Your task to perform on an android device: turn on airplane mode Image 0: 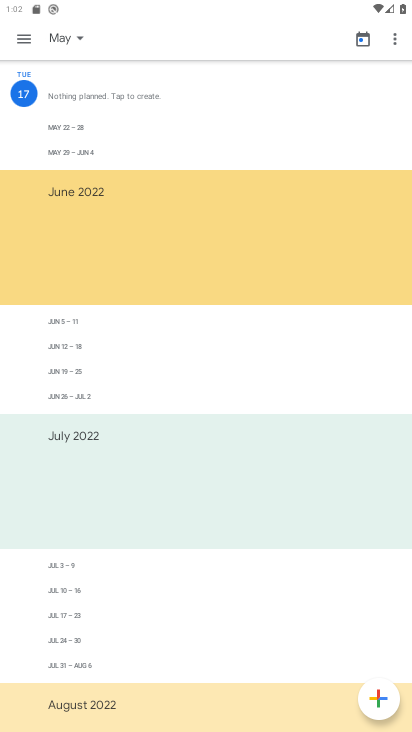
Step 0: press home button
Your task to perform on an android device: turn on airplane mode Image 1: 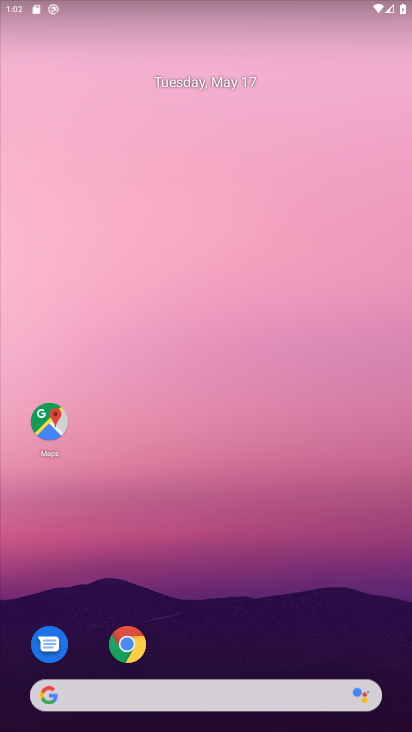
Step 1: drag from (231, 573) to (240, 63)
Your task to perform on an android device: turn on airplane mode Image 2: 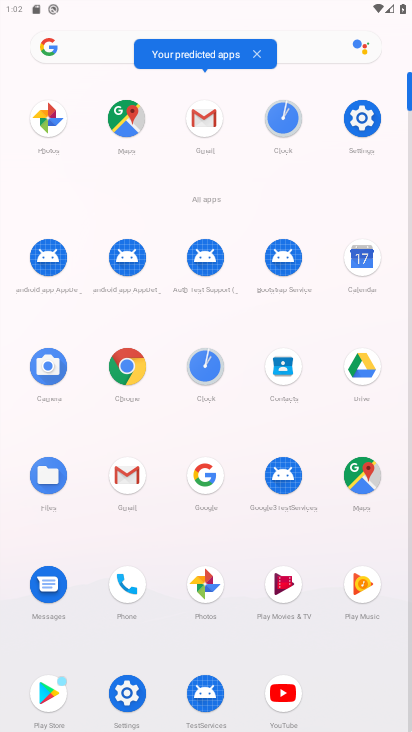
Step 2: click (355, 114)
Your task to perform on an android device: turn on airplane mode Image 3: 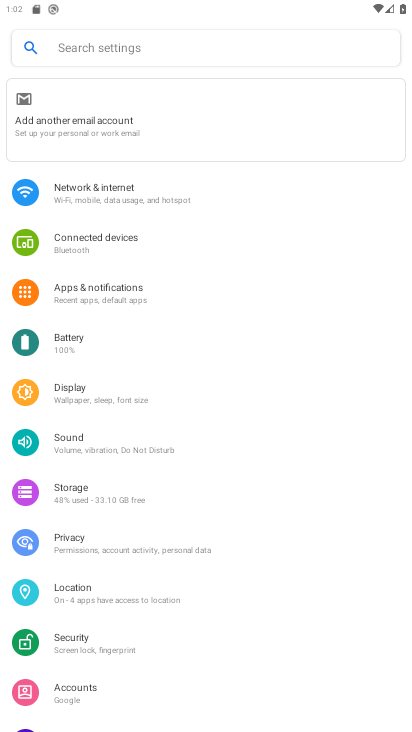
Step 3: click (108, 191)
Your task to perform on an android device: turn on airplane mode Image 4: 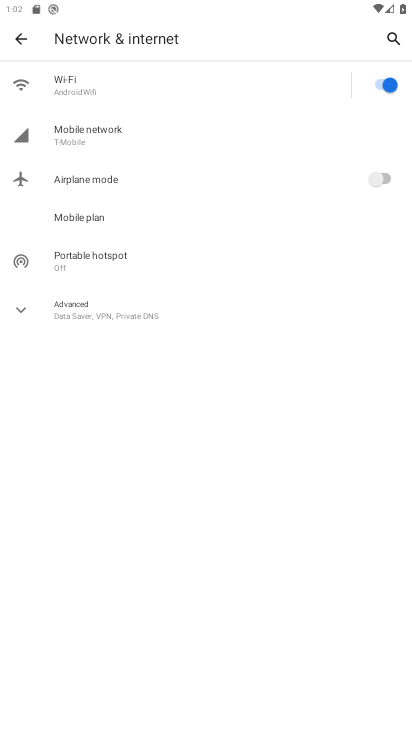
Step 4: click (387, 177)
Your task to perform on an android device: turn on airplane mode Image 5: 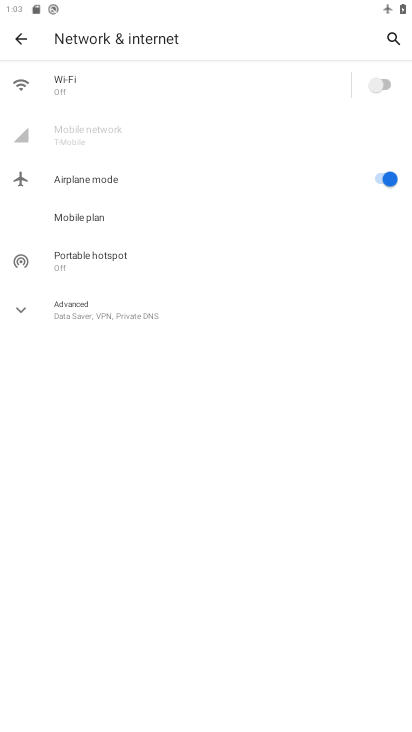
Step 5: task complete